Your task to perform on an android device: Open notification settings Image 0: 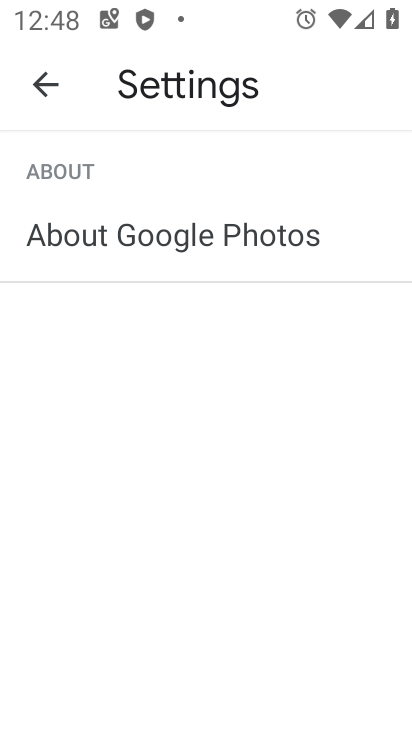
Step 0: click (35, 69)
Your task to perform on an android device: Open notification settings Image 1: 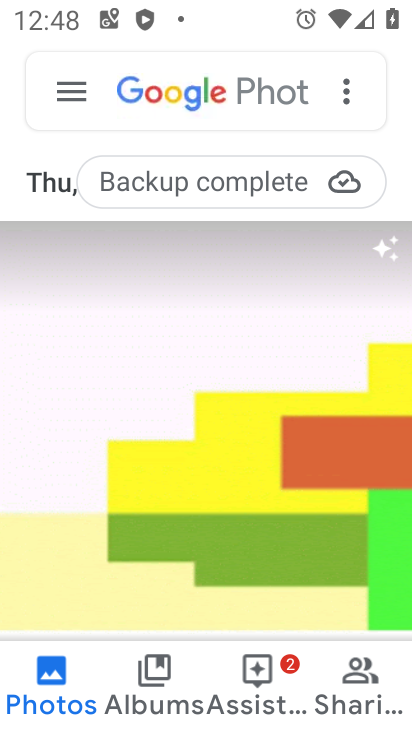
Step 1: press home button
Your task to perform on an android device: Open notification settings Image 2: 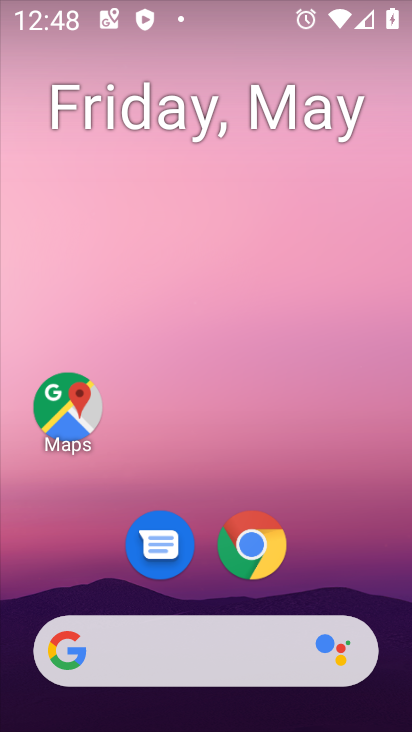
Step 2: drag from (333, 538) to (315, 190)
Your task to perform on an android device: Open notification settings Image 3: 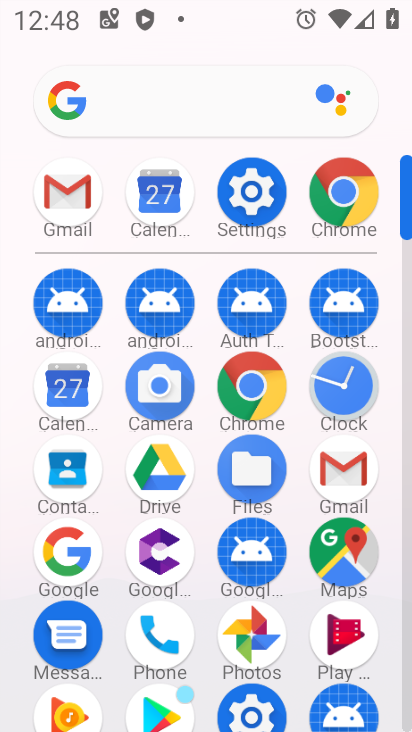
Step 3: click (266, 199)
Your task to perform on an android device: Open notification settings Image 4: 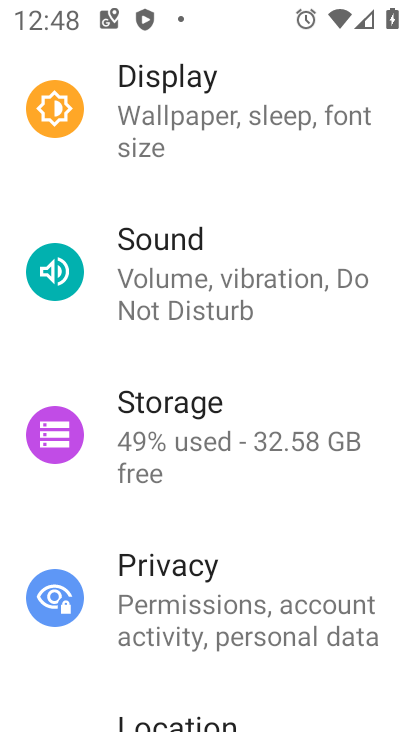
Step 4: drag from (222, 604) to (235, 516)
Your task to perform on an android device: Open notification settings Image 5: 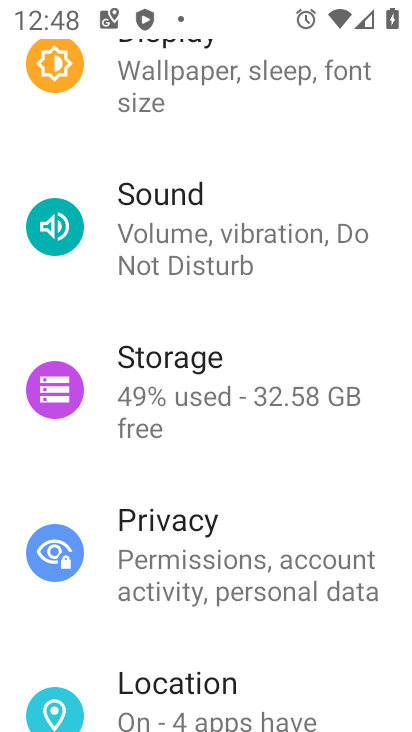
Step 5: press back button
Your task to perform on an android device: Open notification settings Image 6: 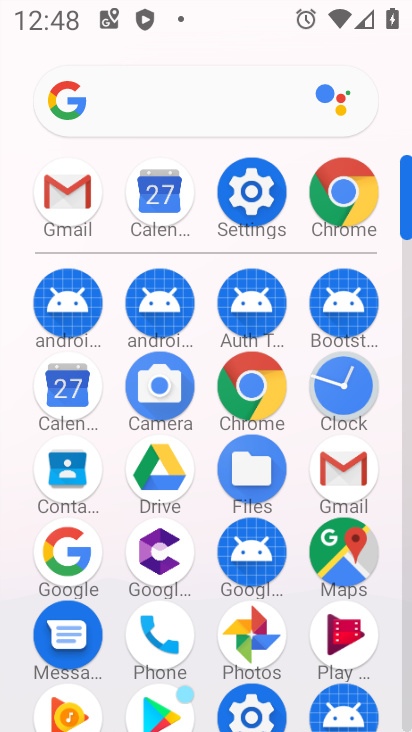
Step 6: click (243, 182)
Your task to perform on an android device: Open notification settings Image 7: 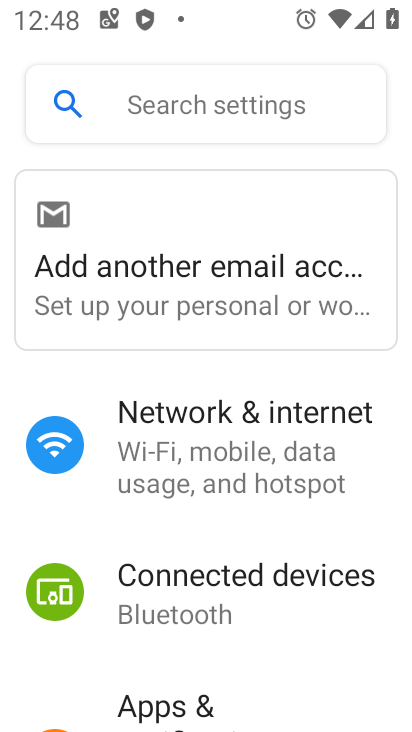
Step 7: click (161, 703)
Your task to perform on an android device: Open notification settings Image 8: 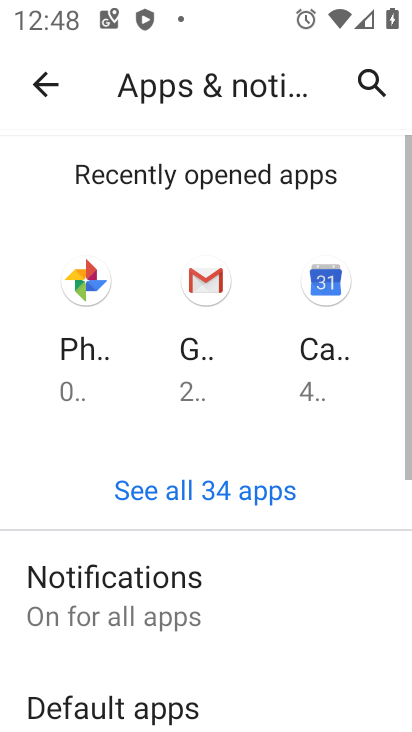
Step 8: task complete